Your task to perform on an android device: Open settings on Google Maps Image 0: 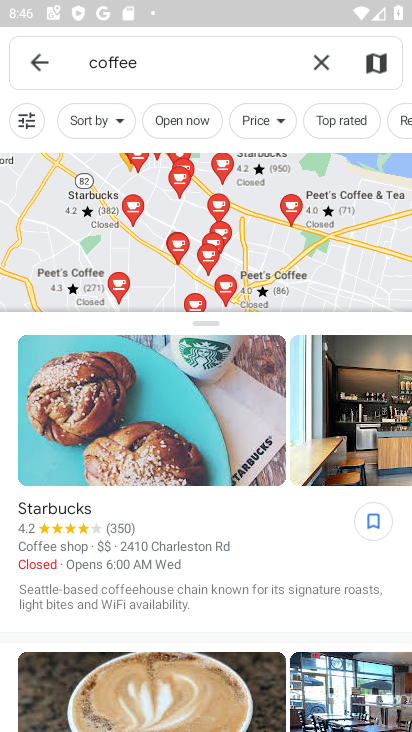
Step 0: press home button
Your task to perform on an android device: Open settings on Google Maps Image 1: 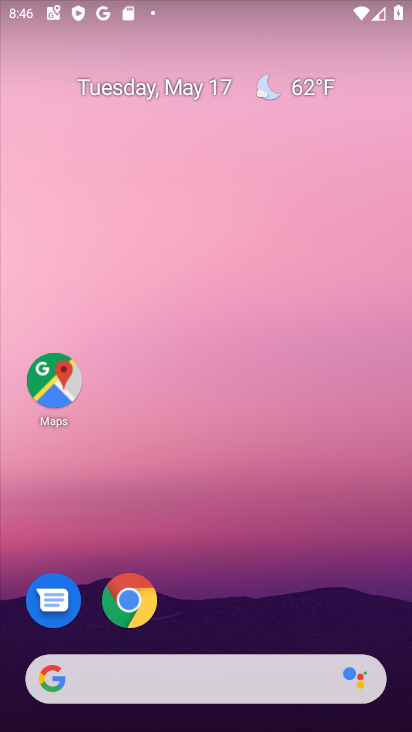
Step 1: drag from (210, 717) to (210, 63)
Your task to perform on an android device: Open settings on Google Maps Image 2: 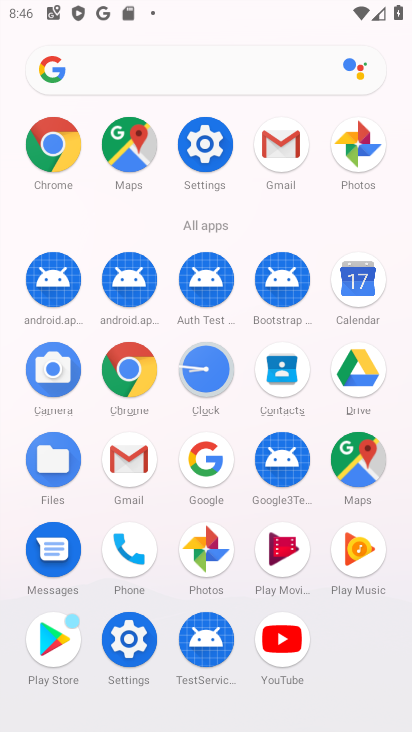
Step 2: click (351, 459)
Your task to perform on an android device: Open settings on Google Maps Image 3: 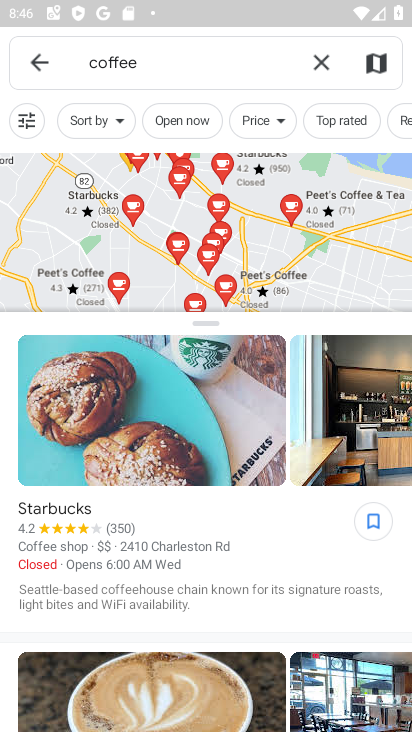
Step 3: click (39, 63)
Your task to perform on an android device: Open settings on Google Maps Image 4: 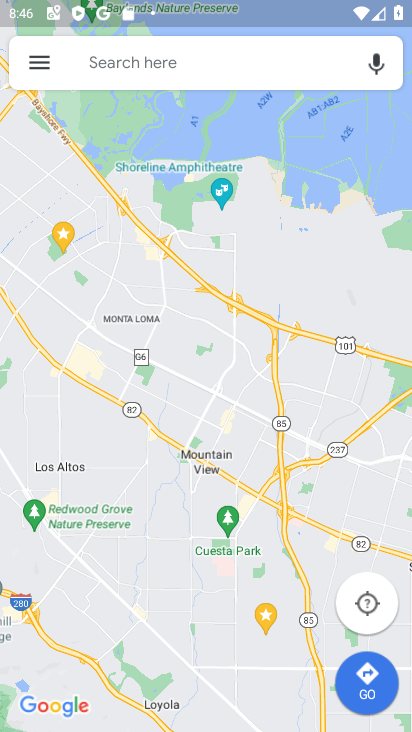
Step 4: click (35, 60)
Your task to perform on an android device: Open settings on Google Maps Image 5: 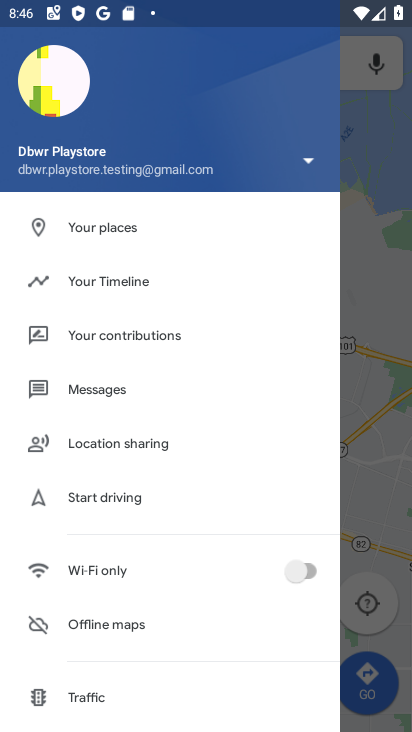
Step 5: drag from (145, 684) to (144, 133)
Your task to perform on an android device: Open settings on Google Maps Image 6: 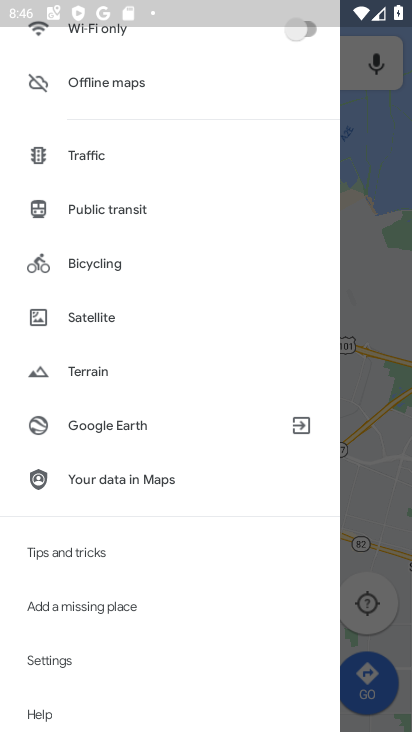
Step 6: click (67, 658)
Your task to perform on an android device: Open settings on Google Maps Image 7: 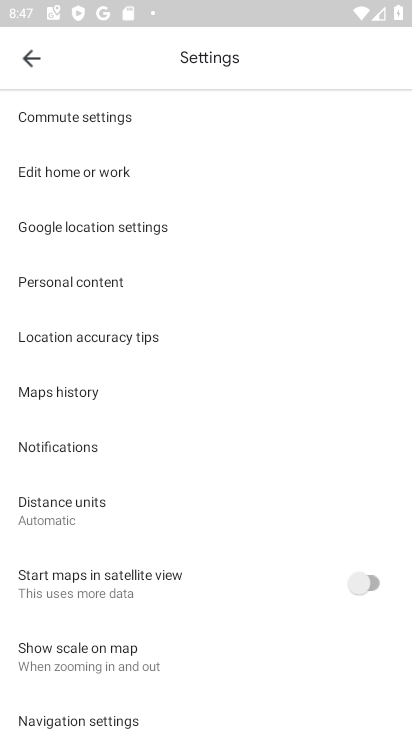
Step 7: task complete